Your task to perform on an android device: Open the stopwatch Image 0: 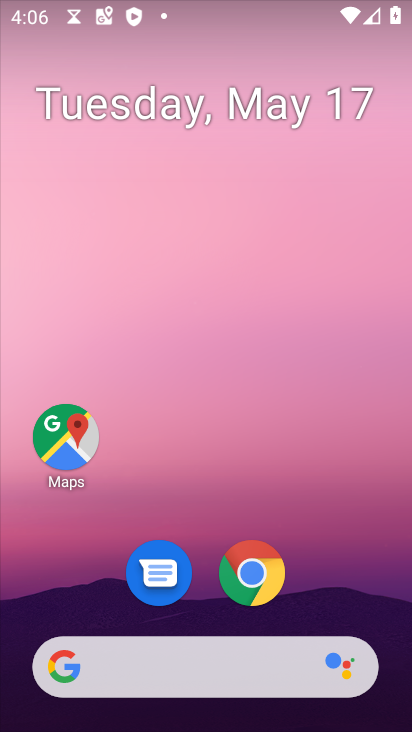
Step 0: drag from (338, 605) to (223, 279)
Your task to perform on an android device: Open the stopwatch Image 1: 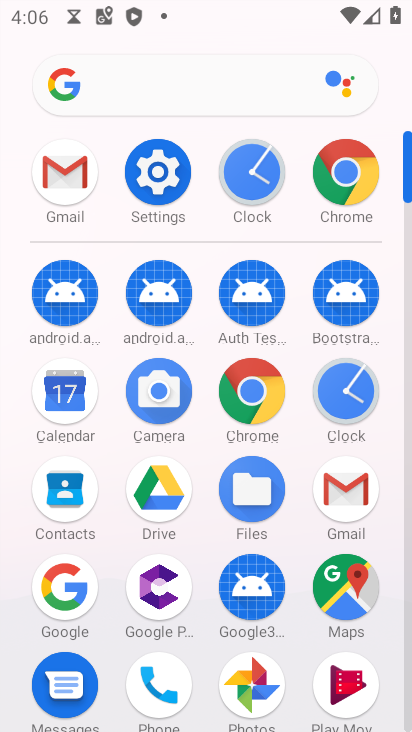
Step 1: click (245, 192)
Your task to perform on an android device: Open the stopwatch Image 2: 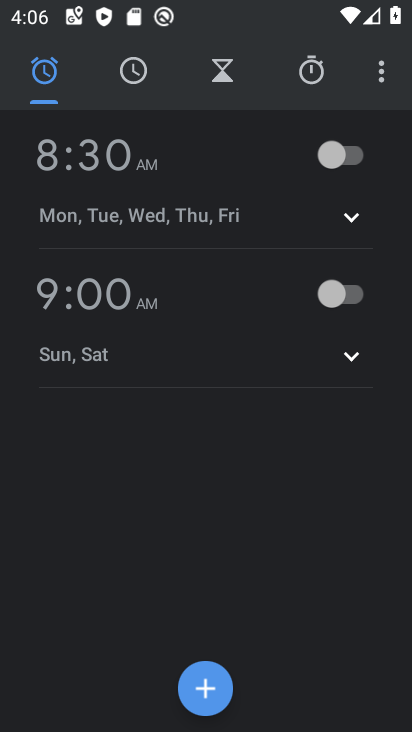
Step 2: click (307, 83)
Your task to perform on an android device: Open the stopwatch Image 3: 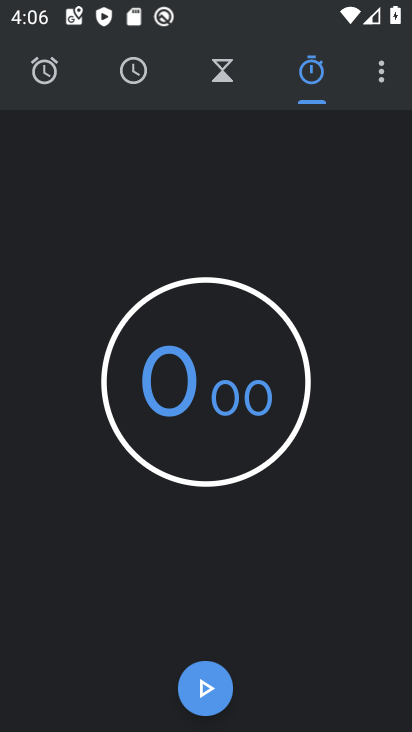
Step 3: task complete